Your task to perform on an android device: What's the weather? Image 0: 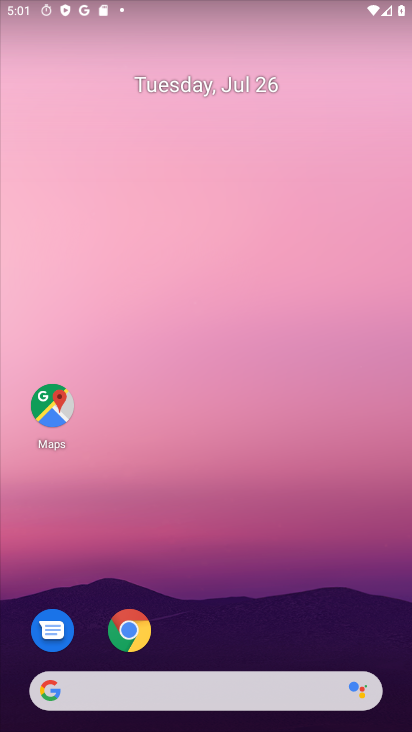
Step 0: drag from (272, 569) to (206, 78)
Your task to perform on an android device: What's the weather? Image 1: 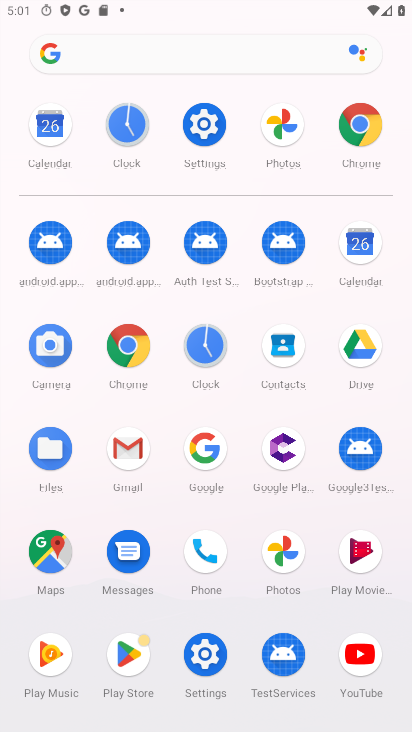
Step 1: click (366, 131)
Your task to perform on an android device: What's the weather? Image 2: 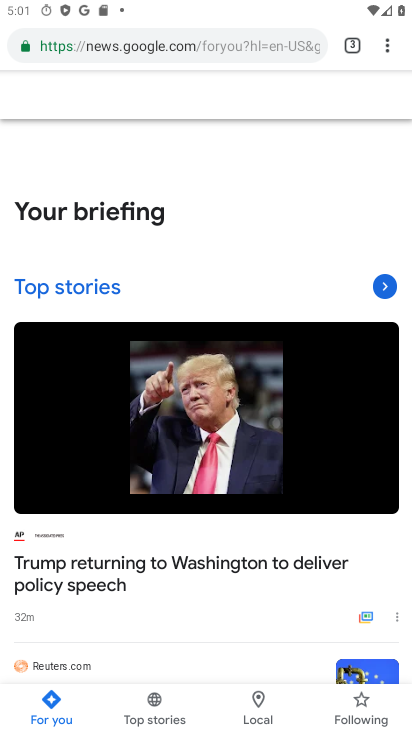
Step 2: click (257, 42)
Your task to perform on an android device: What's the weather? Image 3: 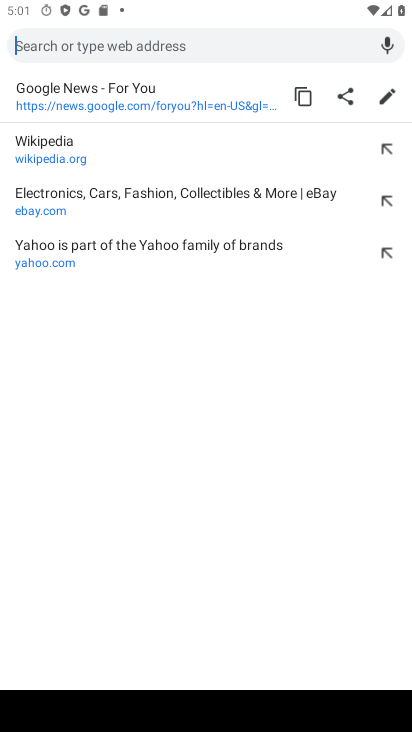
Step 3: type "weather"
Your task to perform on an android device: What's the weather? Image 4: 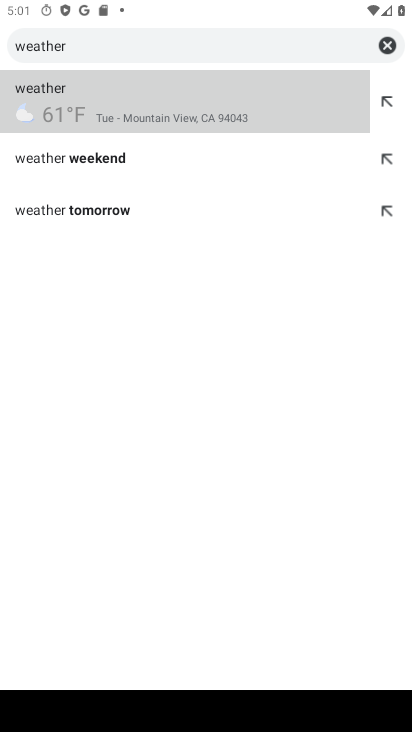
Step 4: click (130, 109)
Your task to perform on an android device: What's the weather? Image 5: 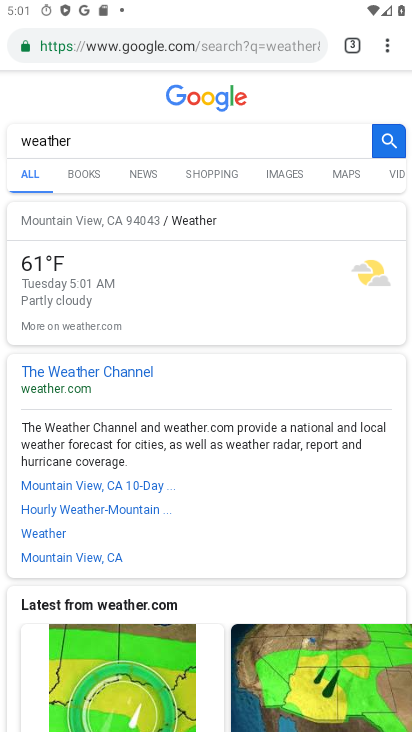
Step 5: task complete